Your task to perform on an android device: Go to sound settings Image 0: 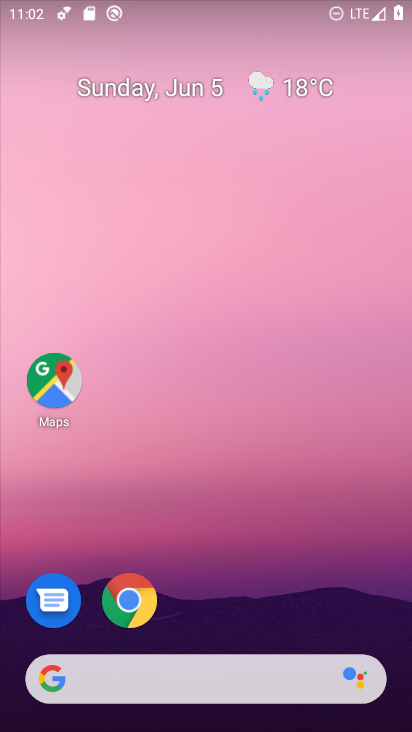
Step 0: drag from (232, 618) to (209, 181)
Your task to perform on an android device: Go to sound settings Image 1: 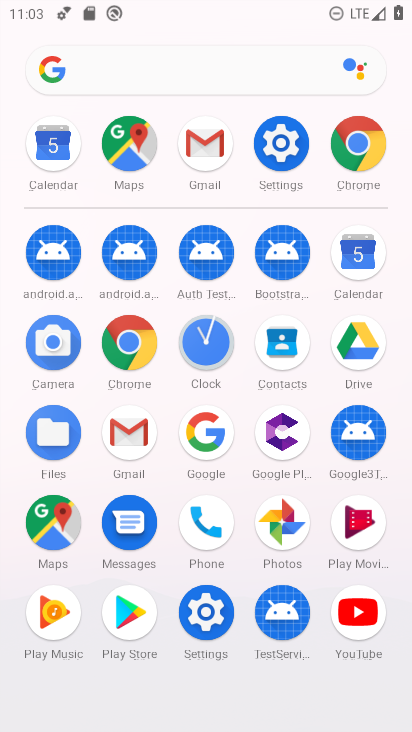
Step 1: click (271, 155)
Your task to perform on an android device: Go to sound settings Image 2: 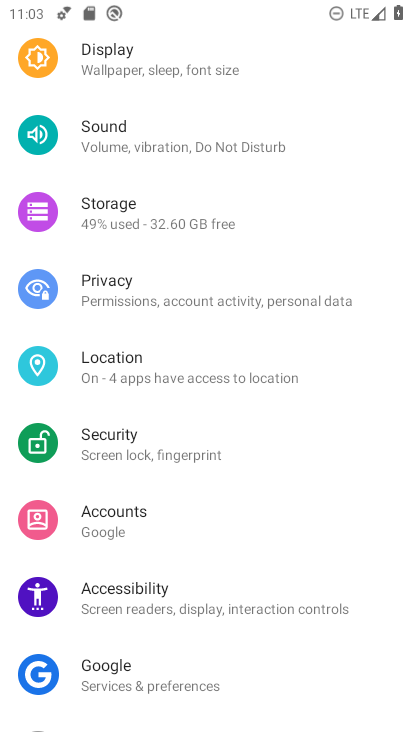
Step 2: click (165, 152)
Your task to perform on an android device: Go to sound settings Image 3: 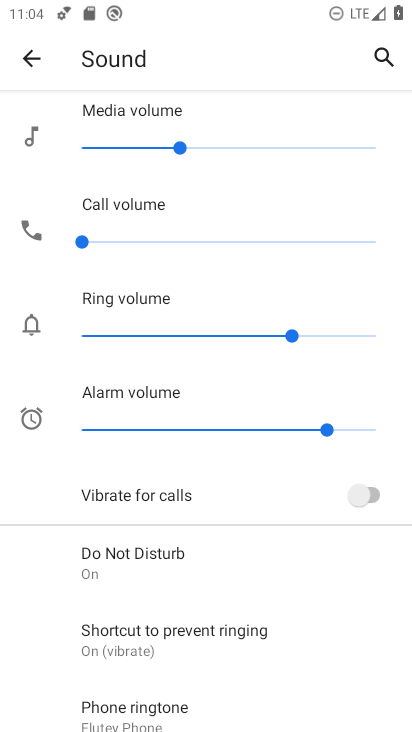
Step 3: task complete